Your task to perform on an android device: open app "Venmo" Image 0: 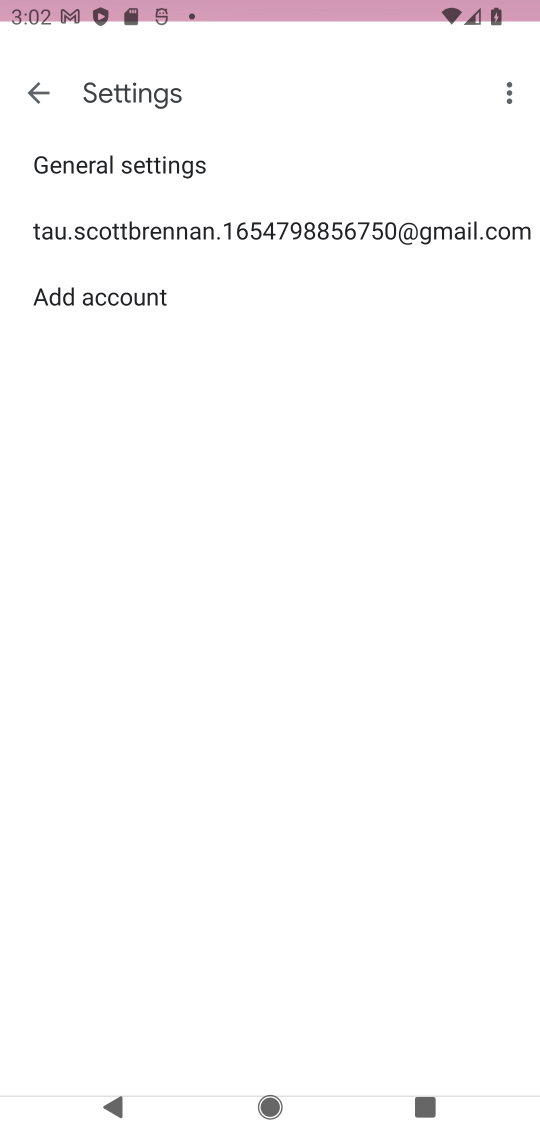
Step 0: press home button
Your task to perform on an android device: open app "Venmo" Image 1: 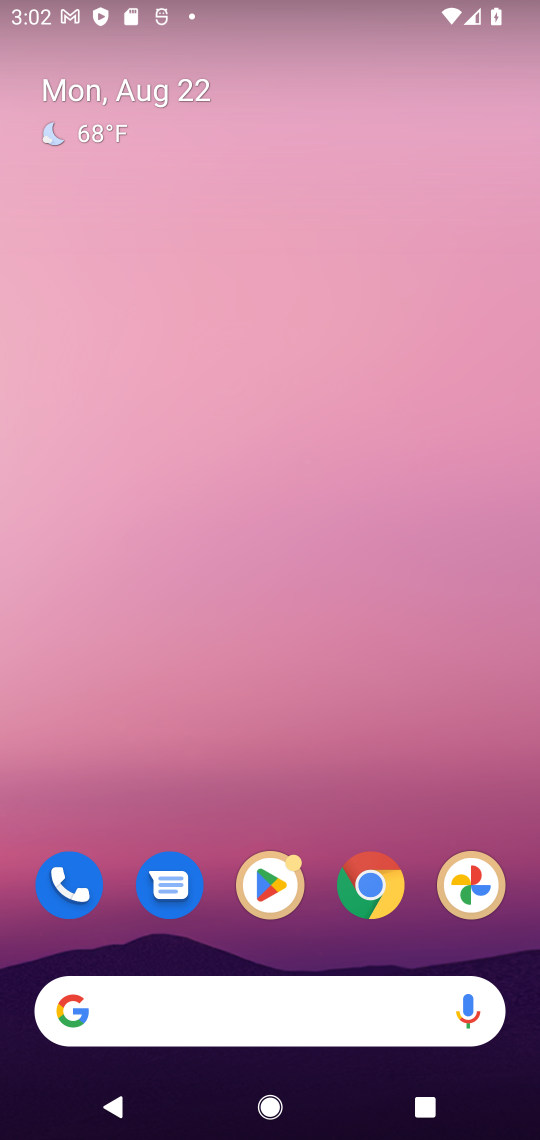
Step 1: click (262, 875)
Your task to perform on an android device: open app "Venmo" Image 2: 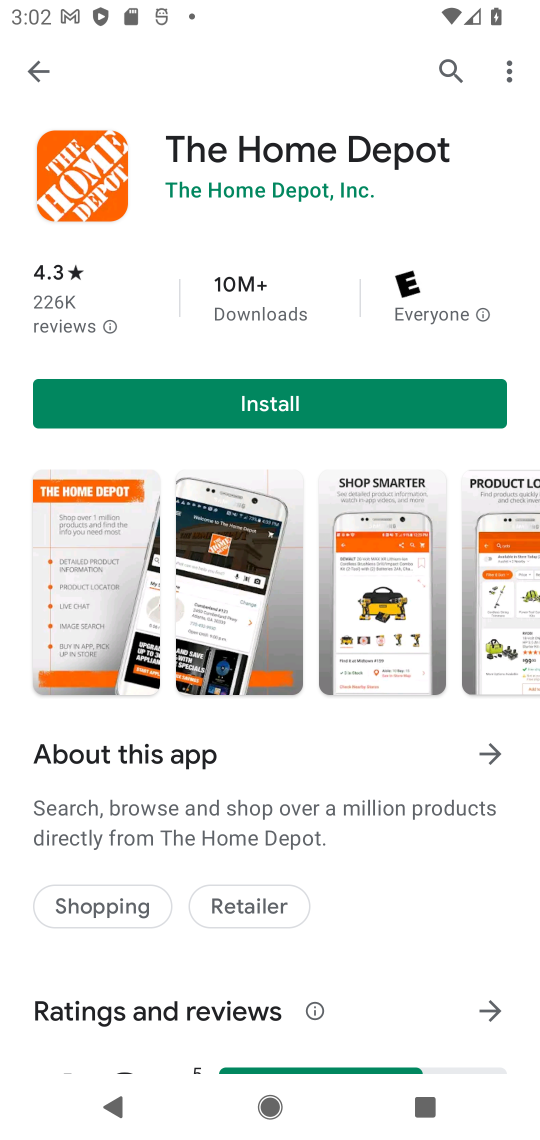
Step 2: click (437, 66)
Your task to perform on an android device: open app "Venmo" Image 3: 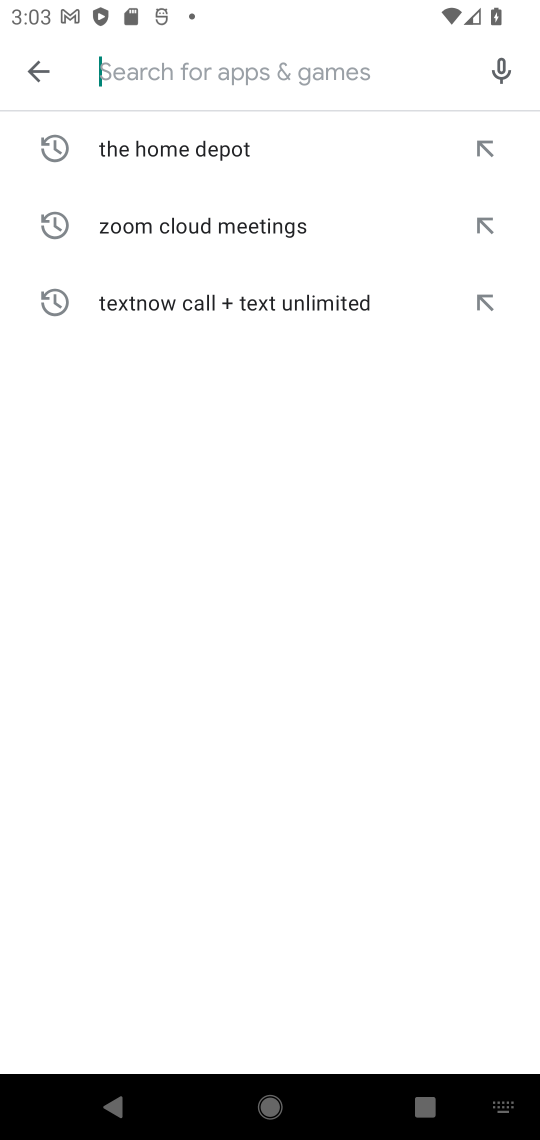
Step 3: type "Venmo"
Your task to perform on an android device: open app "Venmo" Image 4: 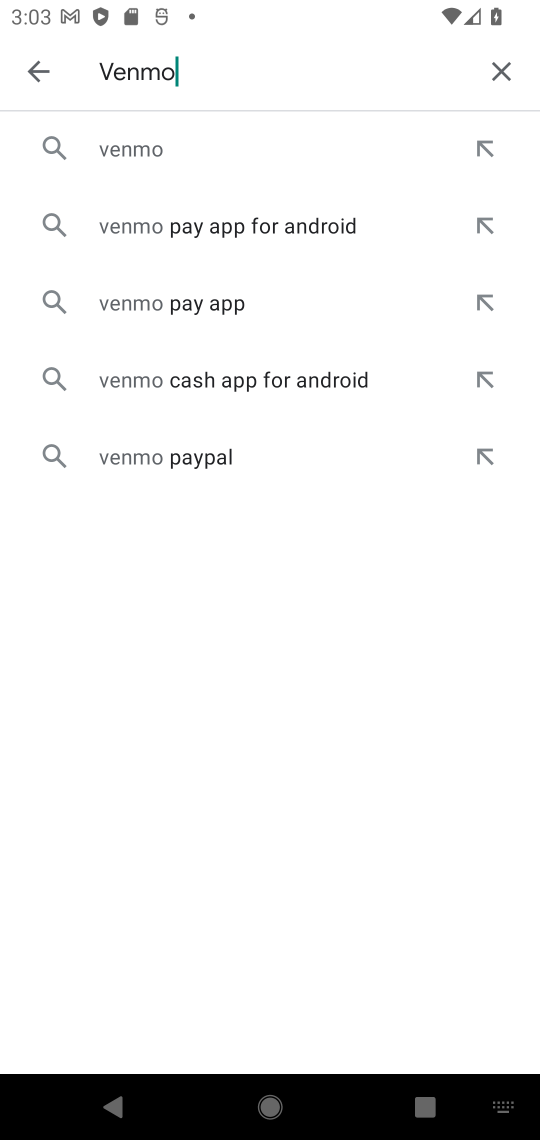
Step 4: click (184, 151)
Your task to perform on an android device: open app "Venmo" Image 5: 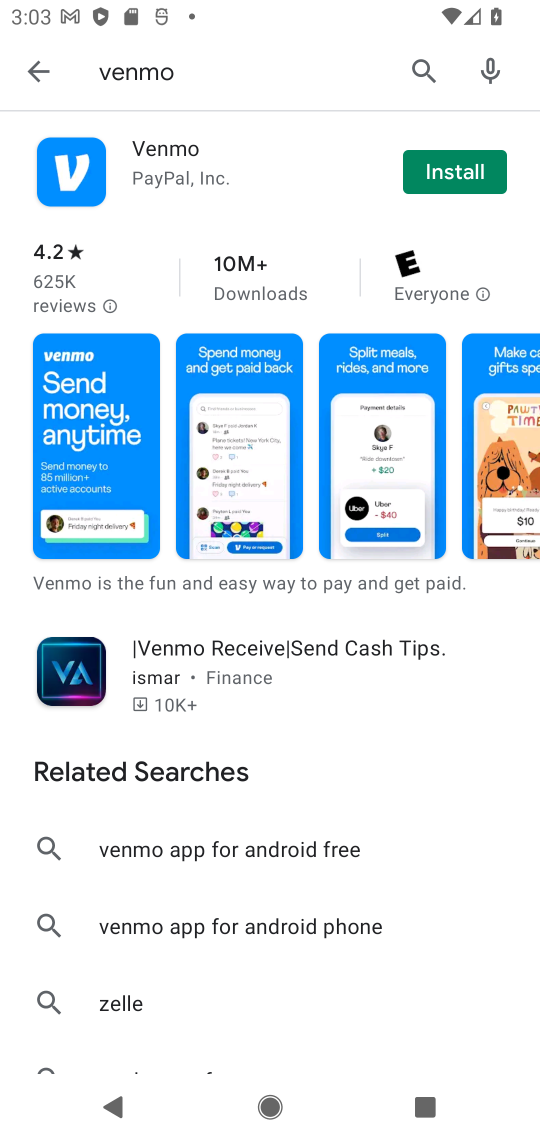
Step 5: task complete